Your task to perform on an android device: Open the web browser Image 0: 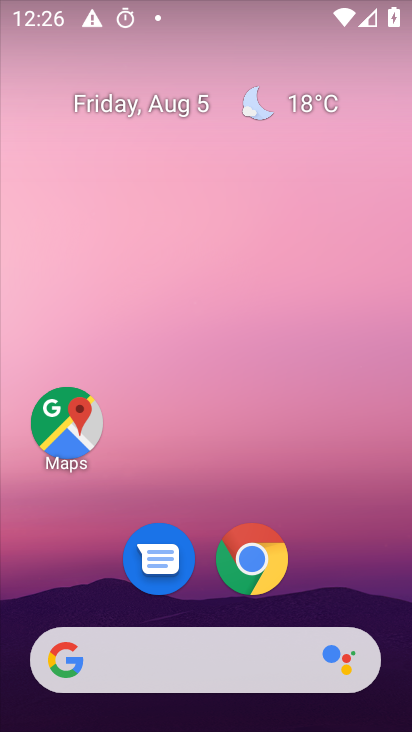
Step 0: drag from (19, 521) to (411, 479)
Your task to perform on an android device: Open the web browser Image 1: 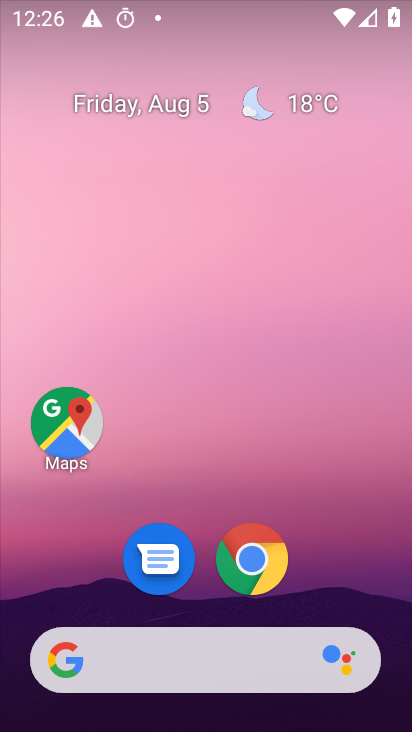
Step 1: task complete